Your task to perform on an android device: check battery use Image 0: 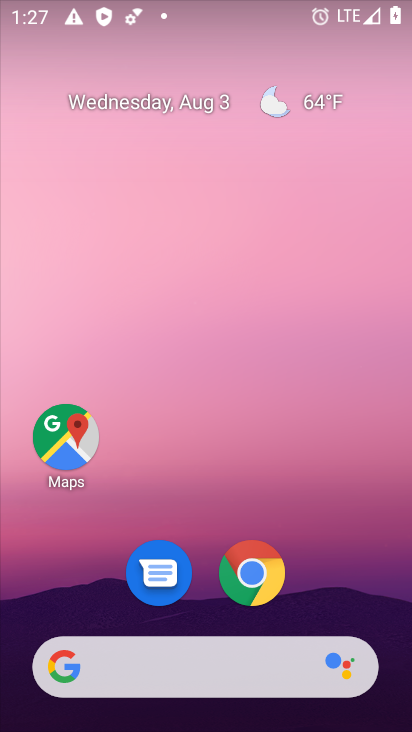
Step 0: drag from (221, 638) to (268, 147)
Your task to perform on an android device: check battery use Image 1: 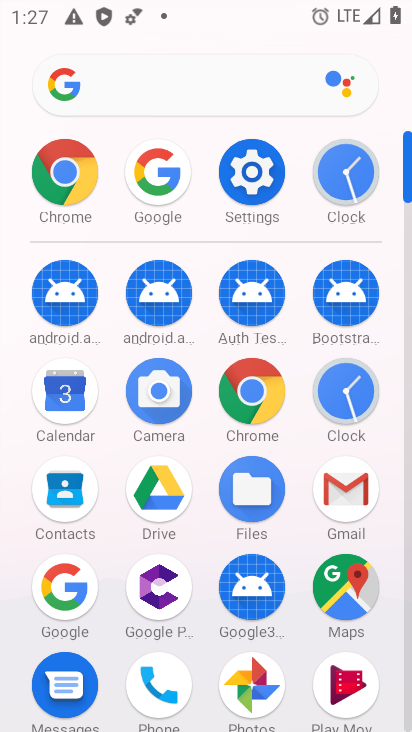
Step 1: click (275, 184)
Your task to perform on an android device: check battery use Image 2: 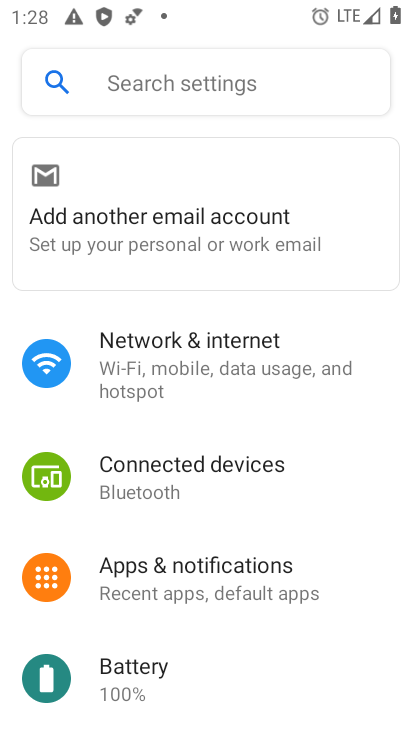
Step 2: drag from (197, 611) to (176, 289)
Your task to perform on an android device: check battery use Image 3: 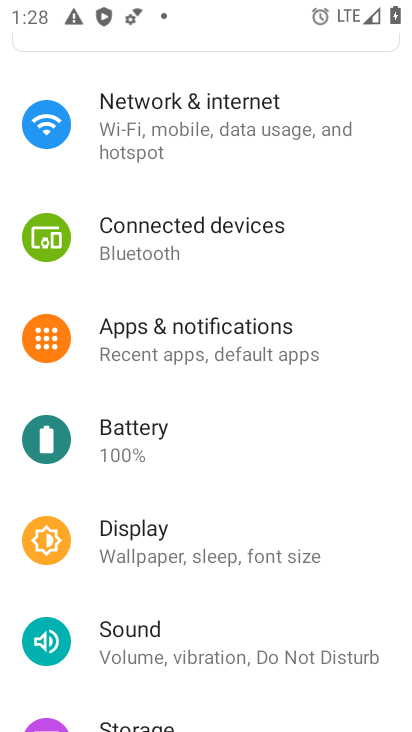
Step 3: click (132, 444)
Your task to perform on an android device: check battery use Image 4: 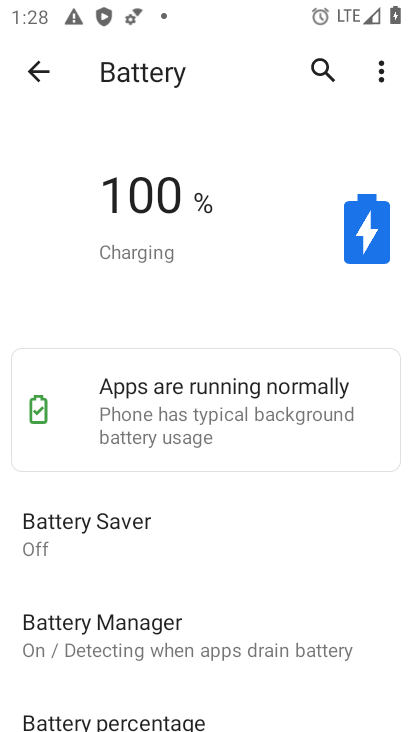
Step 4: task complete